Your task to perform on an android device: toggle data saver in the chrome app Image 0: 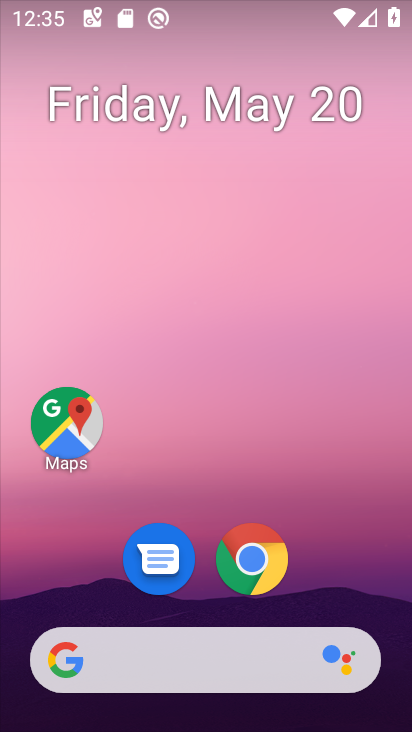
Step 0: click (279, 567)
Your task to perform on an android device: toggle data saver in the chrome app Image 1: 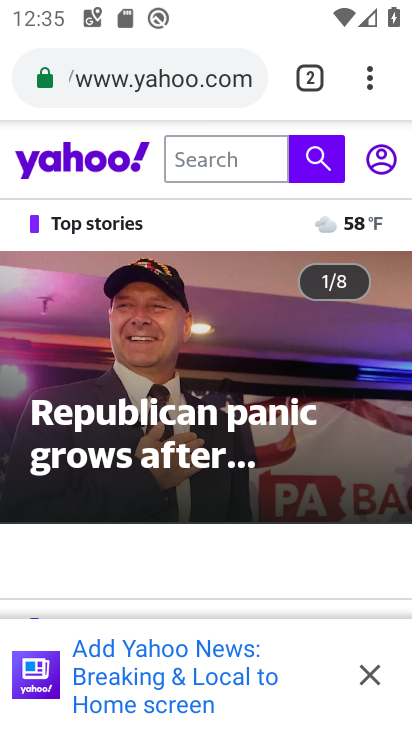
Step 1: click (374, 87)
Your task to perform on an android device: toggle data saver in the chrome app Image 2: 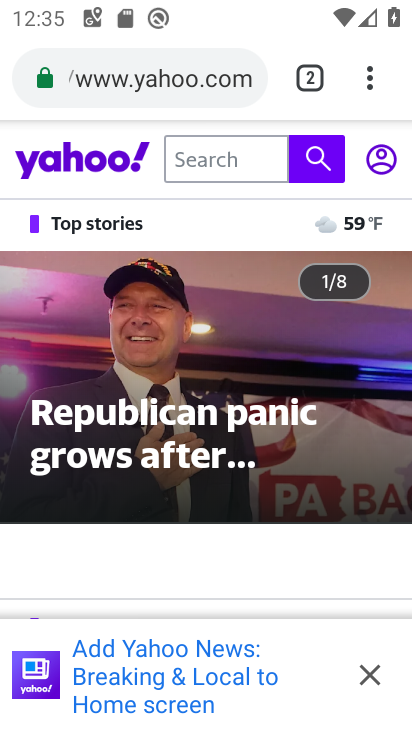
Step 2: drag from (368, 100) to (172, 626)
Your task to perform on an android device: toggle data saver in the chrome app Image 3: 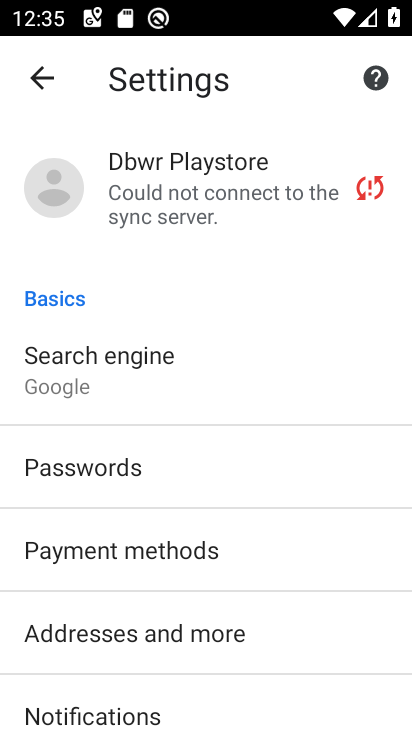
Step 3: drag from (239, 679) to (236, 254)
Your task to perform on an android device: toggle data saver in the chrome app Image 4: 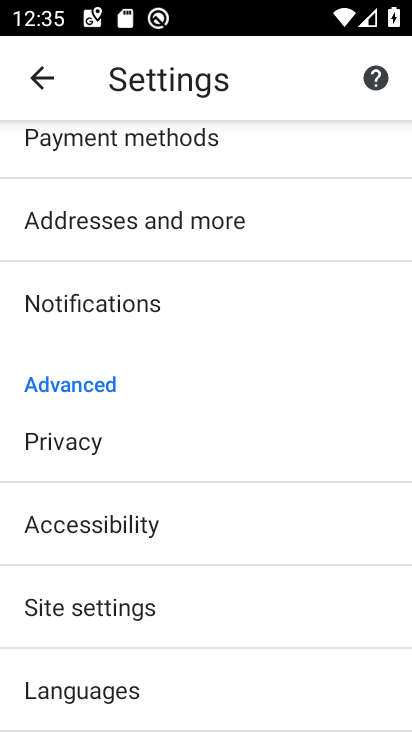
Step 4: drag from (243, 637) to (233, 294)
Your task to perform on an android device: toggle data saver in the chrome app Image 5: 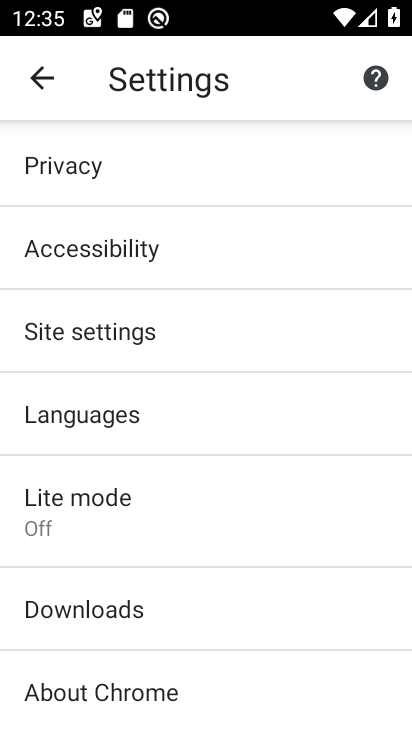
Step 5: click (218, 522)
Your task to perform on an android device: toggle data saver in the chrome app Image 6: 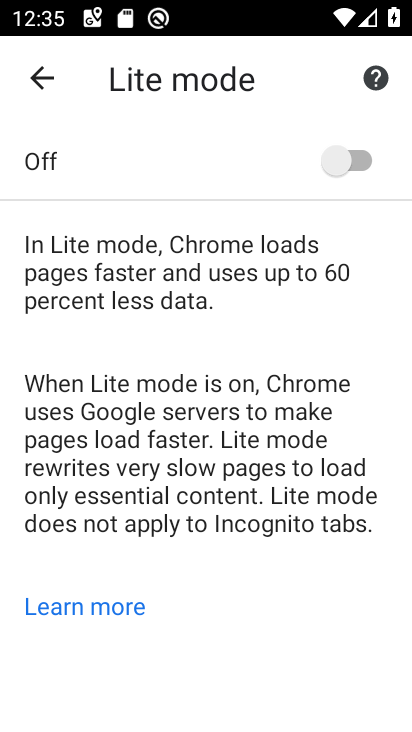
Step 6: click (367, 161)
Your task to perform on an android device: toggle data saver in the chrome app Image 7: 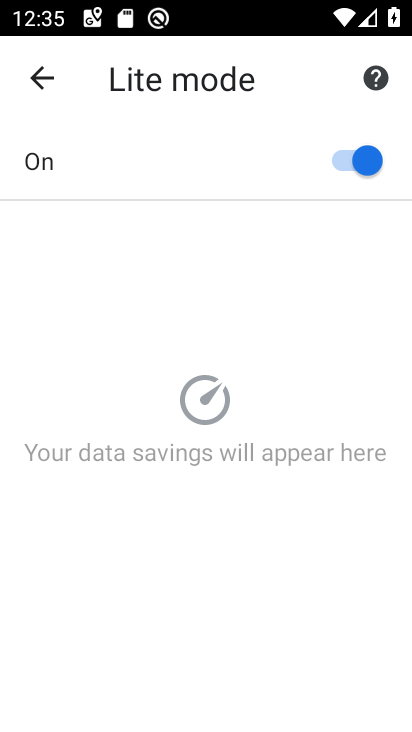
Step 7: task complete